Your task to perform on an android device: turn notification dots on Image 0: 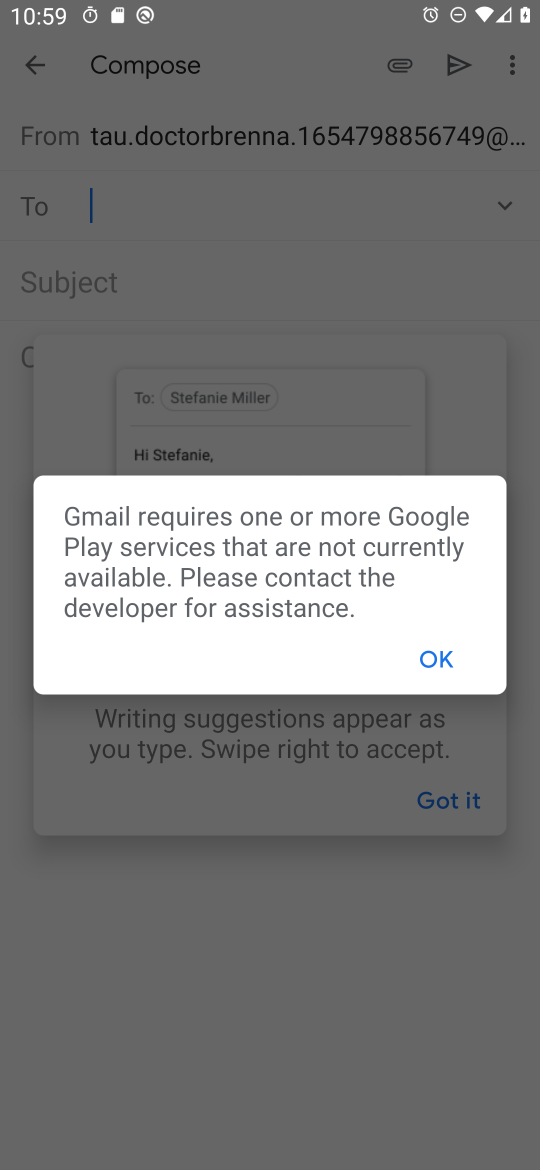
Step 0: press home button
Your task to perform on an android device: turn notification dots on Image 1: 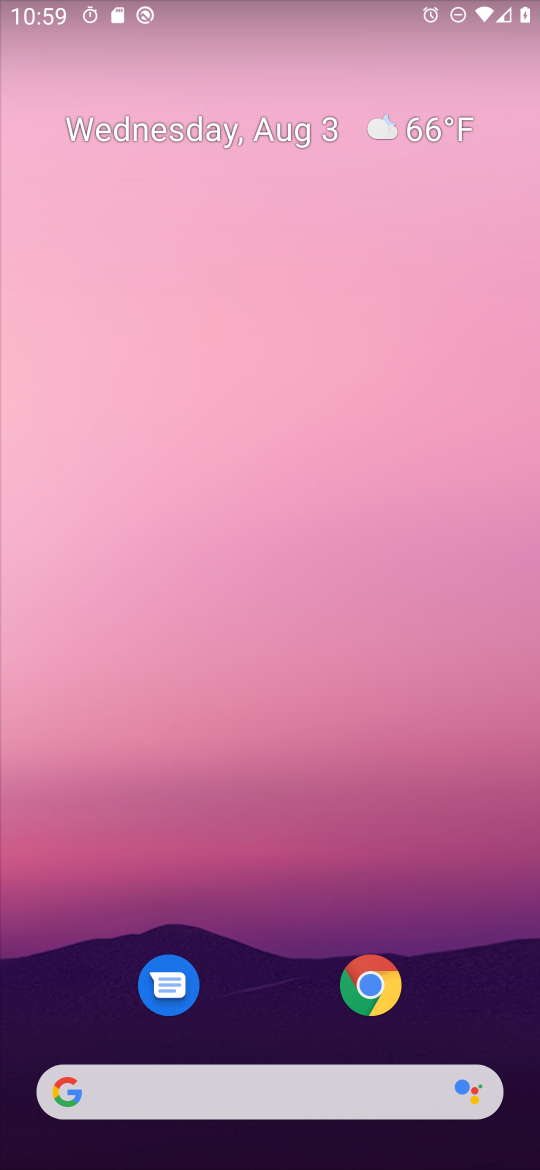
Step 1: drag from (262, 984) to (290, 287)
Your task to perform on an android device: turn notification dots on Image 2: 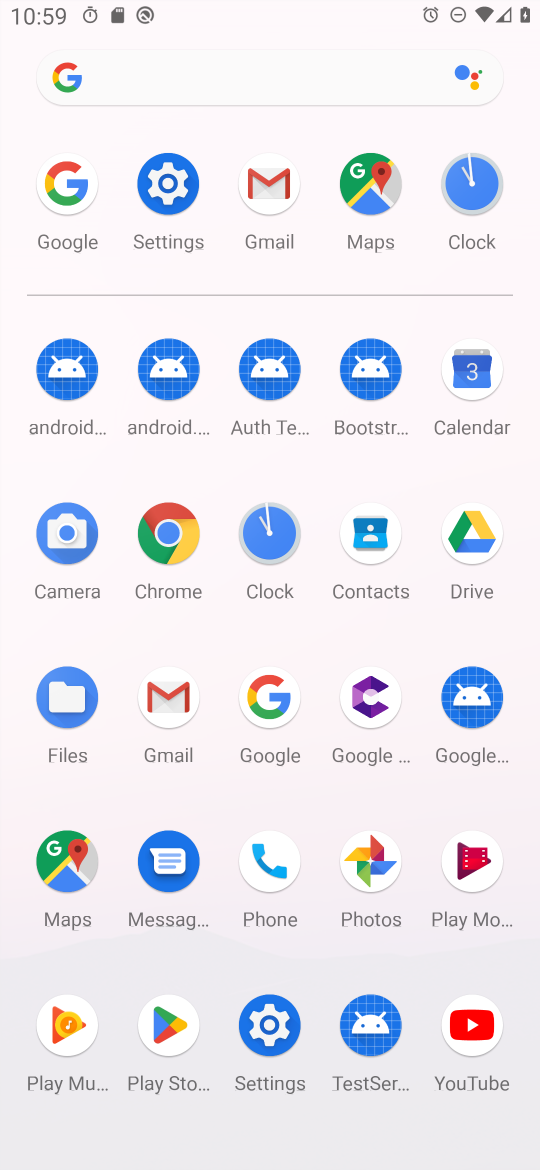
Step 2: click (154, 192)
Your task to perform on an android device: turn notification dots on Image 3: 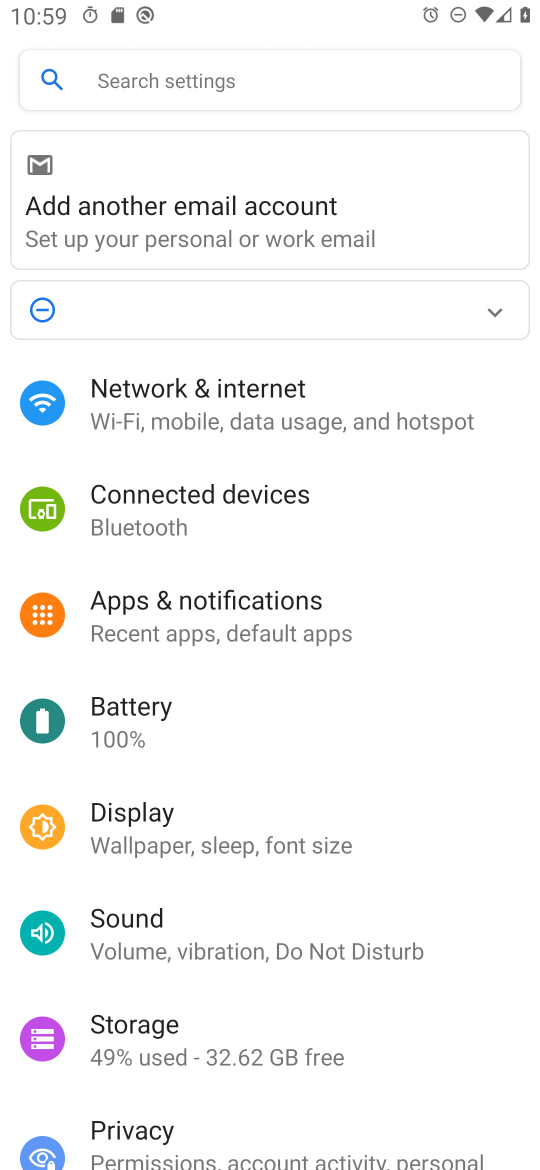
Step 3: click (216, 628)
Your task to perform on an android device: turn notification dots on Image 4: 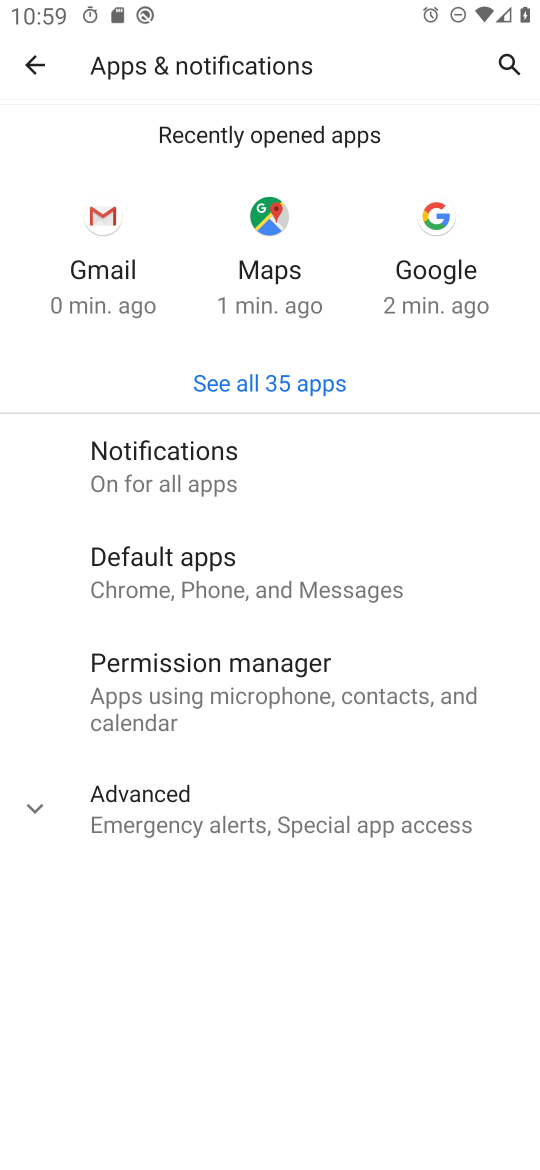
Step 4: click (241, 471)
Your task to perform on an android device: turn notification dots on Image 5: 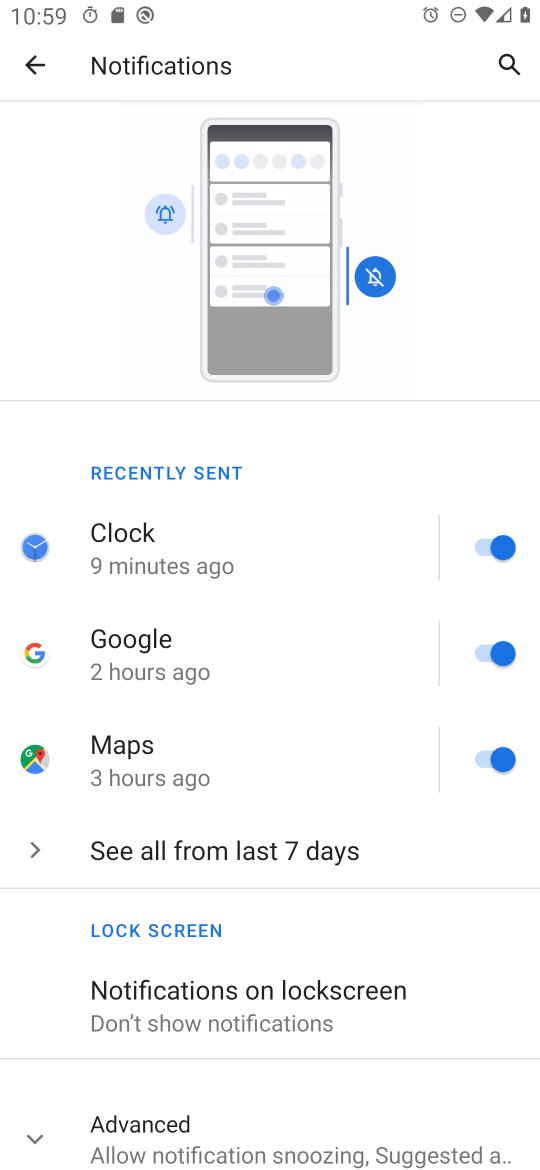
Step 5: drag from (337, 1023) to (300, 493)
Your task to perform on an android device: turn notification dots on Image 6: 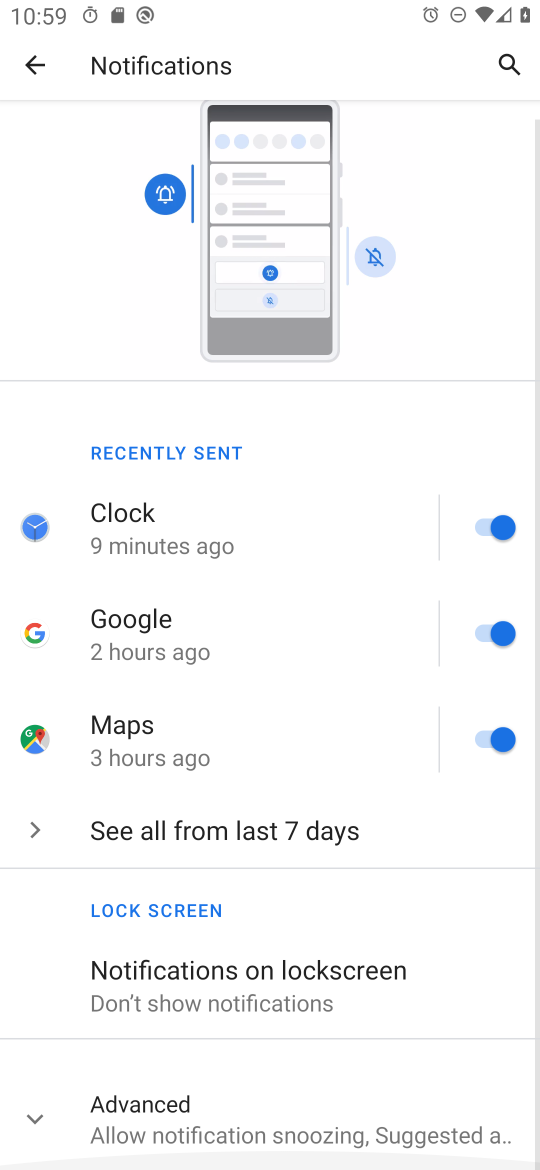
Step 6: click (298, 1106)
Your task to perform on an android device: turn notification dots on Image 7: 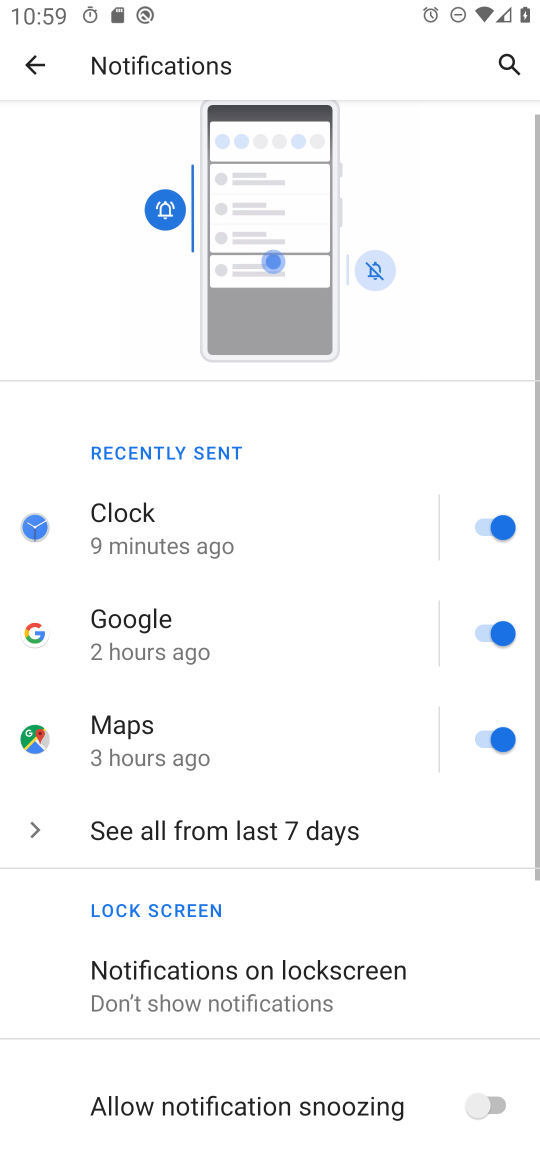
Step 7: task complete